Your task to perform on an android device: find which apps use the phone's location Image 0: 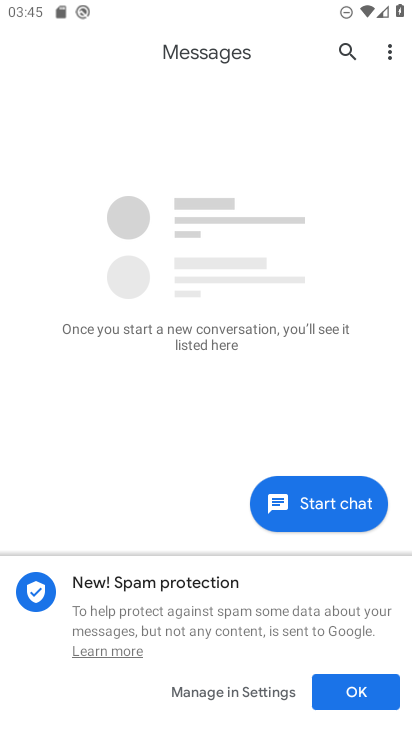
Step 0: press home button
Your task to perform on an android device: find which apps use the phone's location Image 1: 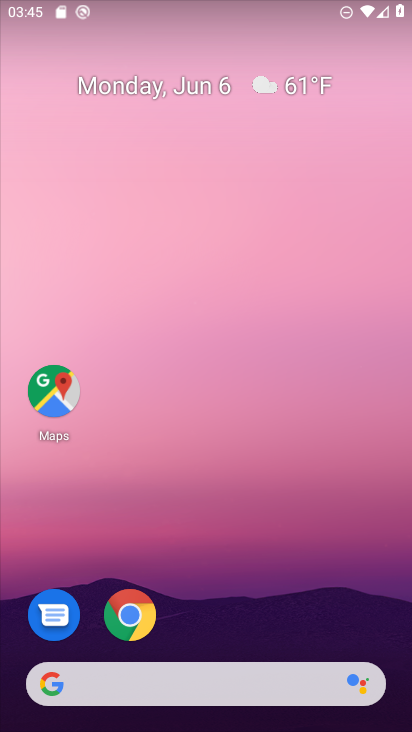
Step 1: drag from (336, 388) to (343, 42)
Your task to perform on an android device: find which apps use the phone's location Image 2: 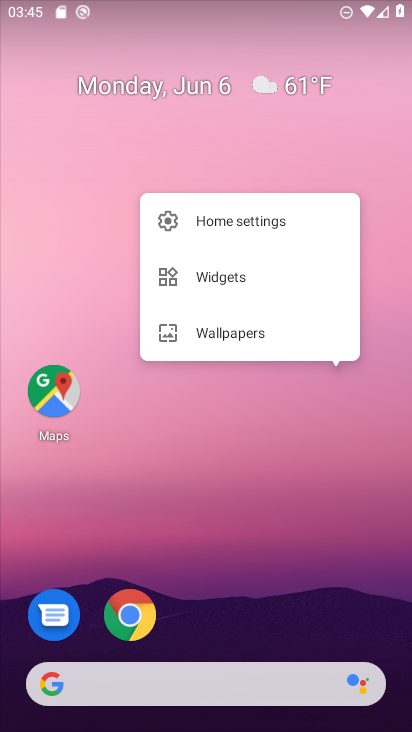
Step 2: drag from (339, 544) to (343, 102)
Your task to perform on an android device: find which apps use the phone's location Image 3: 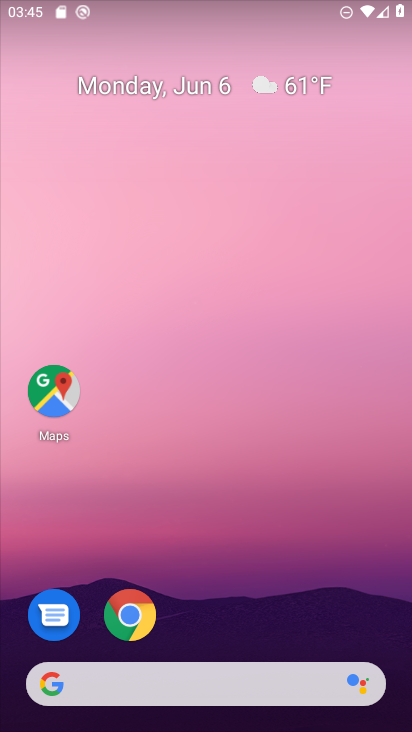
Step 3: drag from (385, 643) to (318, 116)
Your task to perform on an android device: find which apps use the phone's location Image 4: 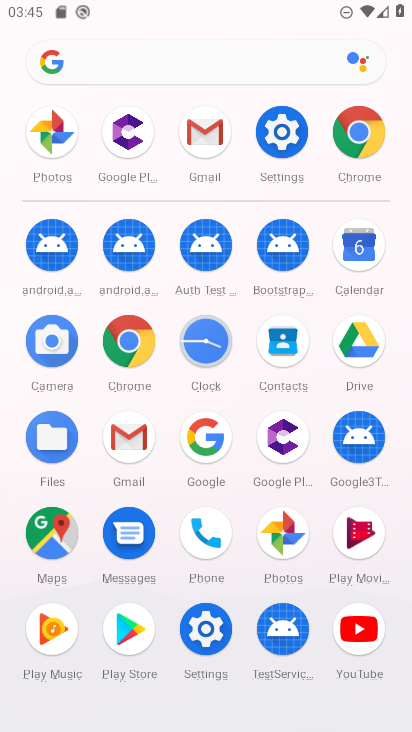
Step 4: click (204, 629)
Your task to perform on an android device: find which apps use the phone's location Image 5: 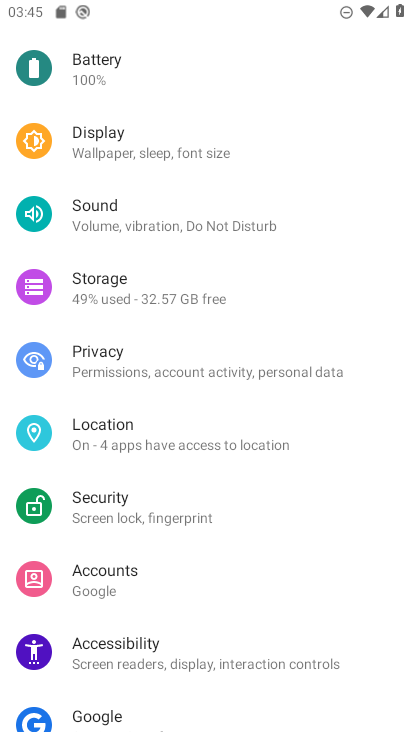
Step 5: click (102, 410)
Your task to perform on an android device: find which apps use the phone's location Image 6: 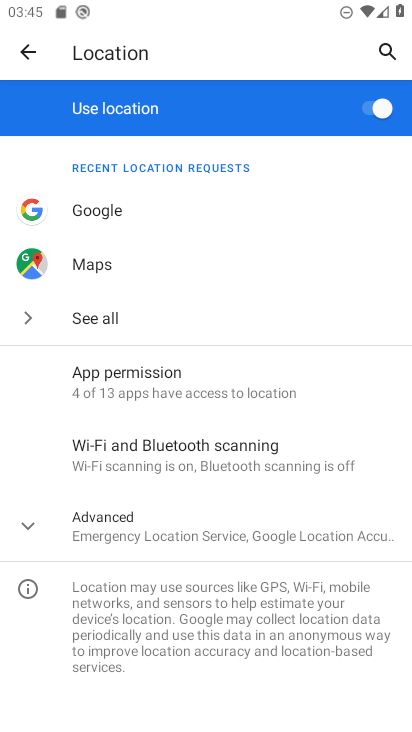
Step 6: click (118, 386)
Your task to perform on an android device: find which apps use the phone's location Image 7: 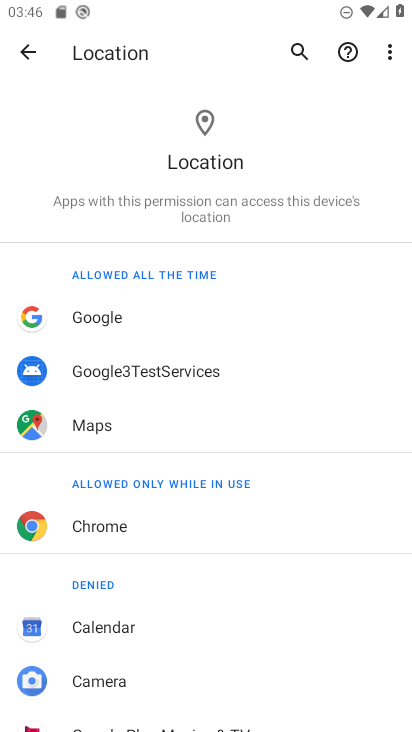
Step 7: drag from (292, 595) to (276, 232)
Your task to perform on an android device: find which apps use the phone's location Image 8: 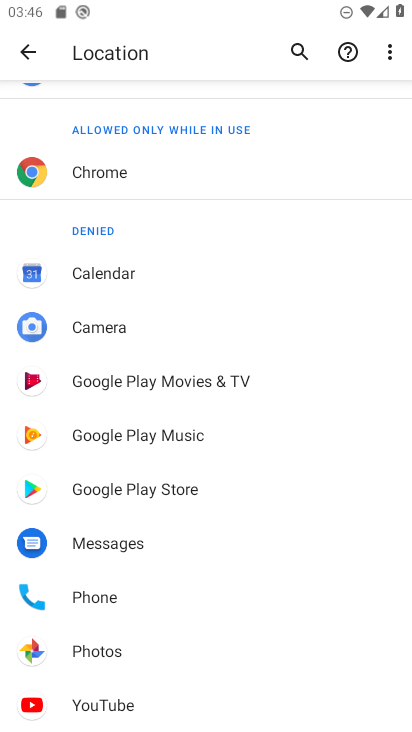
Step 8: click (88, 659)
Your task to perform on an android device: find which apps use the phone's location Image 9: 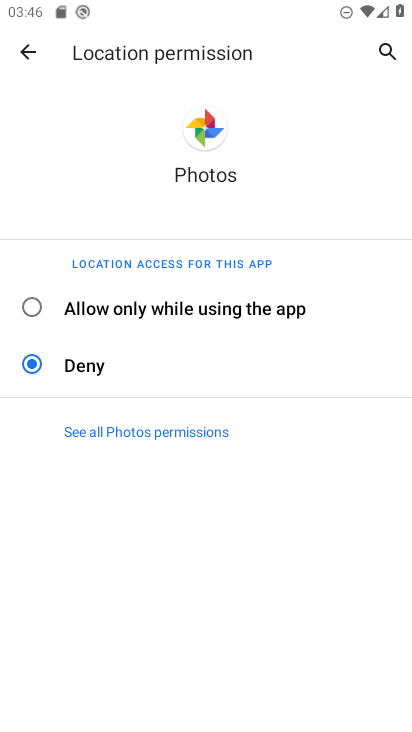
Step 9: task complete